Your task to perform on an android device: uninstall "McDonald's" Image 0: 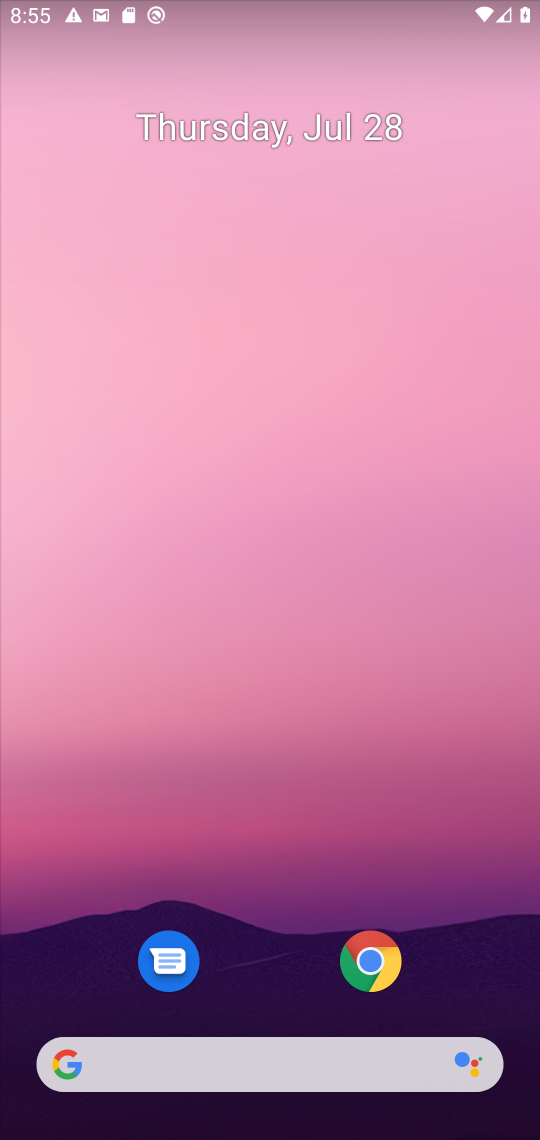
Step 0: task impossible